Your task to perform on an android device: Open settings on Google Maps Image 0: 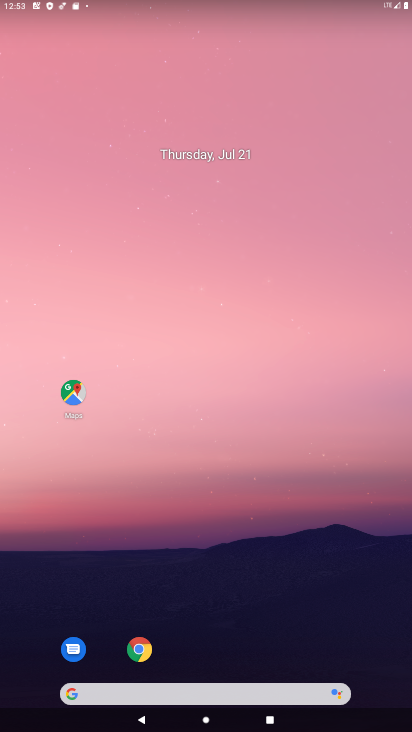
Step 0: drag from (223, 662) to (223, 270)
Your task to perform on an android device: Open settings on Google Maps Image 1: 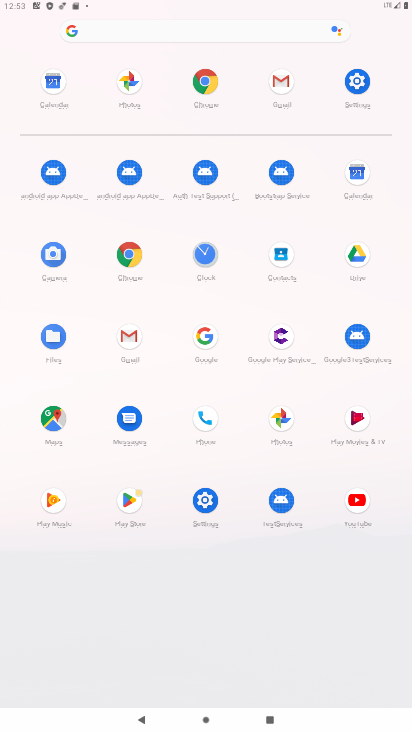
Step 1: click (53, 423)
Your task to perform on an android device: Open settings on Google Maps Image 2: 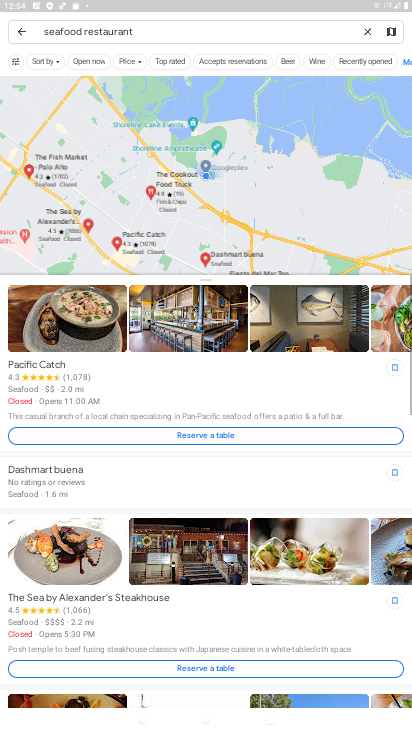
Step 2: click (18, 29)
Your task to perform on an android device: Open settings on Google Maps Image 3: 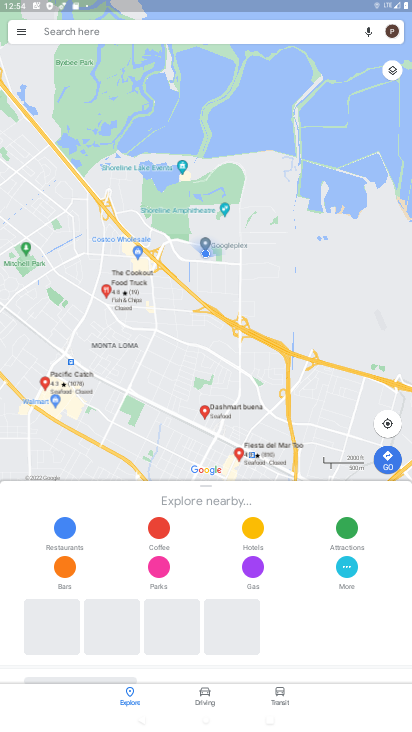
Step 3: click (23, 30)
Your task to perform on an android device: Open settings on Google Maps Image 4: 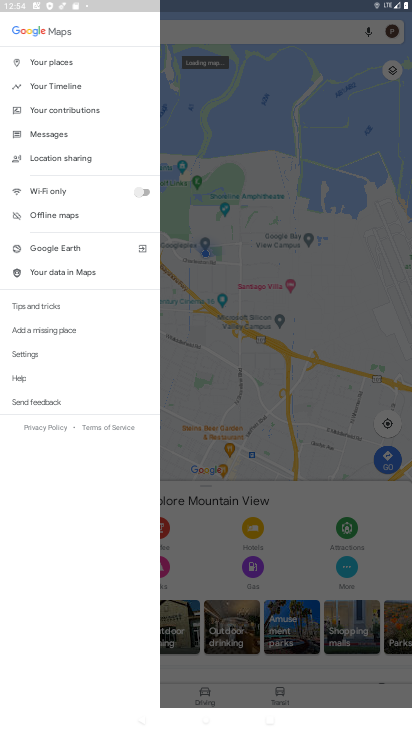
Step 4: click (27, 353)
Your task to perform on an android device: Open settings on Google Maps Image 5: 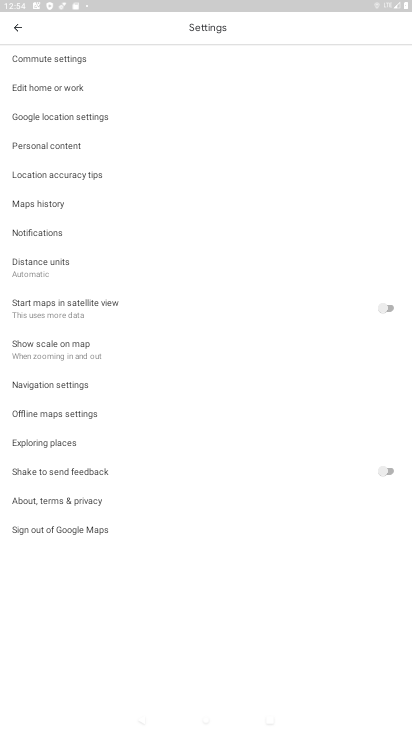
Step 5: task complete